Your task to perform on an android device: check storage Image 0: 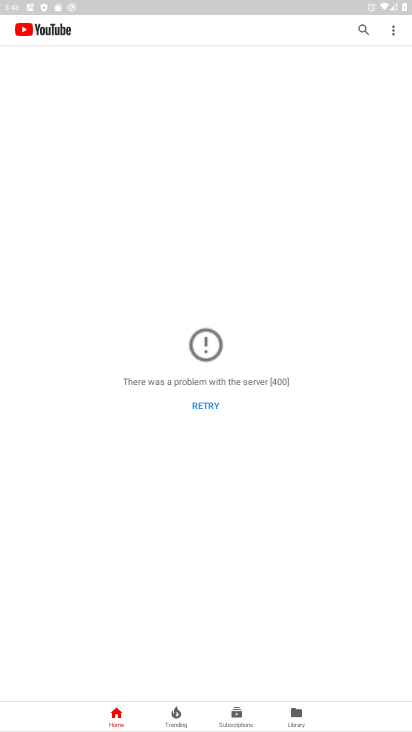
Step 0: press home button
Your task to perform on an android device: check storage Image 1: 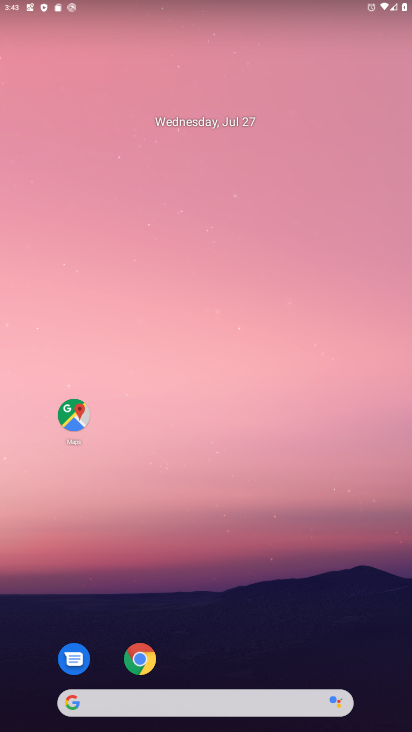
Step 1: drag from (250, 638) to (219, 112)
Your task to perform on an android device: check storage Image 2: 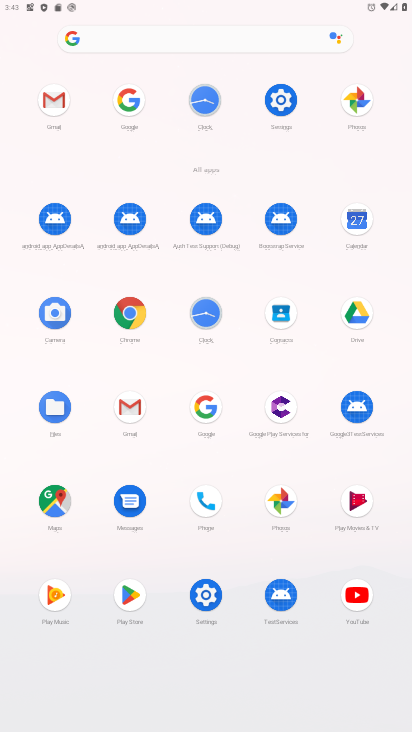
Step 2: click (207, 592)
Your task to perform on an android device: check storage Image 3: 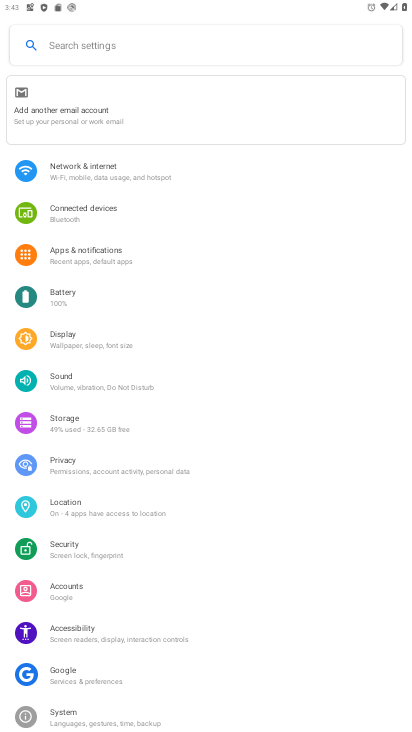
Step 3: click (79, 425)
Your task to perform on an android device: check storage Image 4: 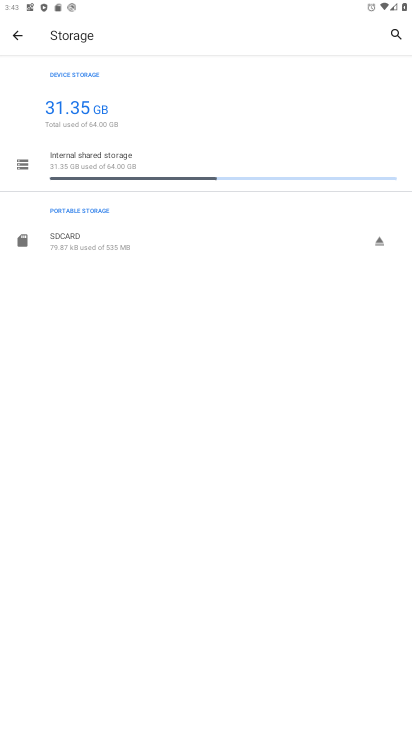
Step 4: task complete